Your task to perform on an android device: see creations saved in the google photos Image 0: 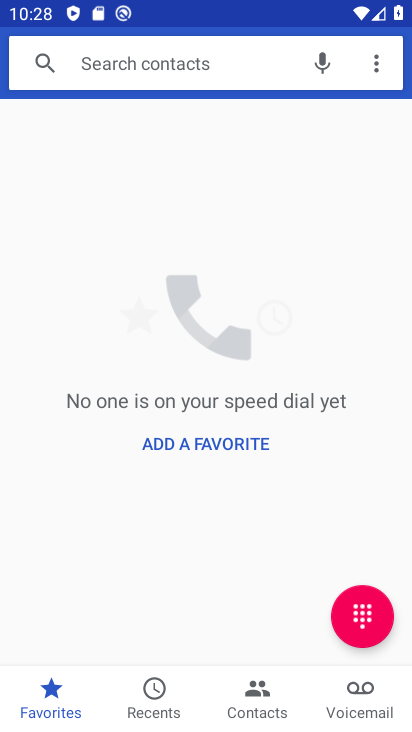
Step 0: press home button
Your task to perform on an android device: see creations saved in the google photos Image 1: 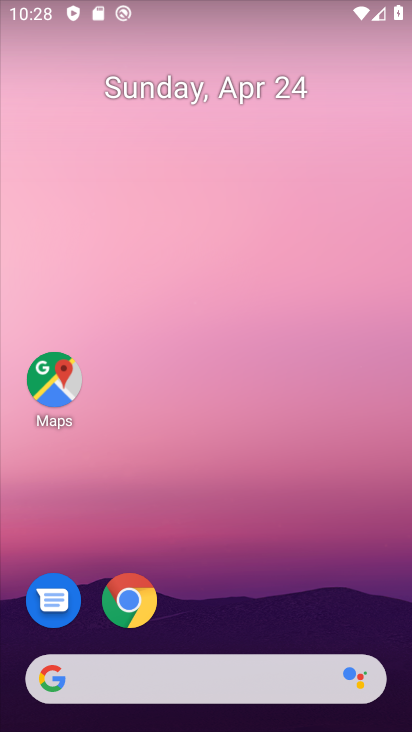
Step 1: drag from (320, 606) to (238, 53)
Your task to perform on an android device: see creations saved in the google photos Image 2: 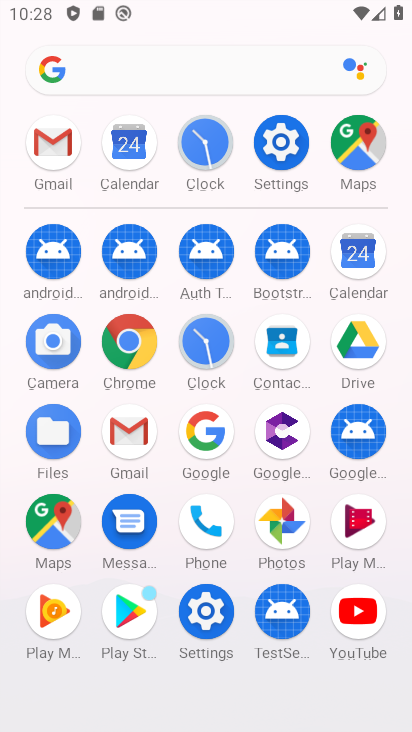
Step 2: click (279, 528)
Your task to perform on an android device: see creations saved in the google photos Image 3: 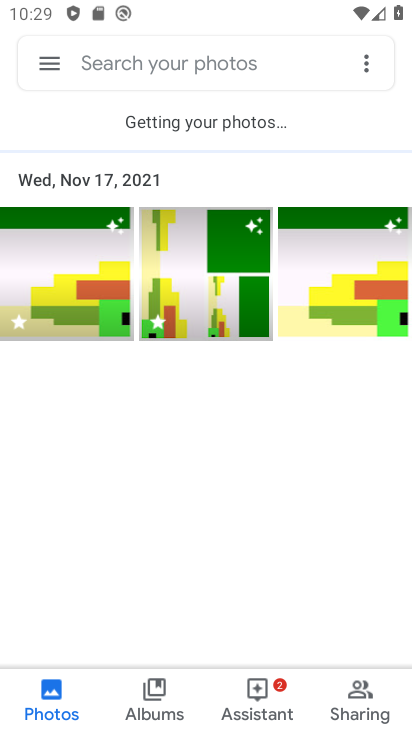
Step 3: click (134, 59)
Your task to perform on an android device: see creations saved in the google photos Image 4: 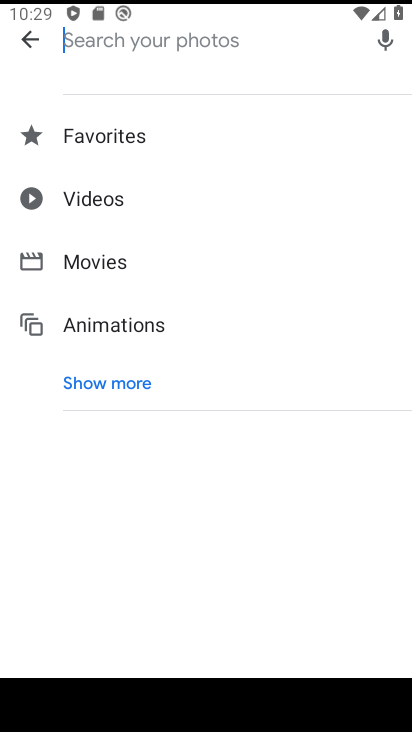
Step 4: click (114, 380)
Your task to perform on an android device: see creations saved in the google photos Image 5: 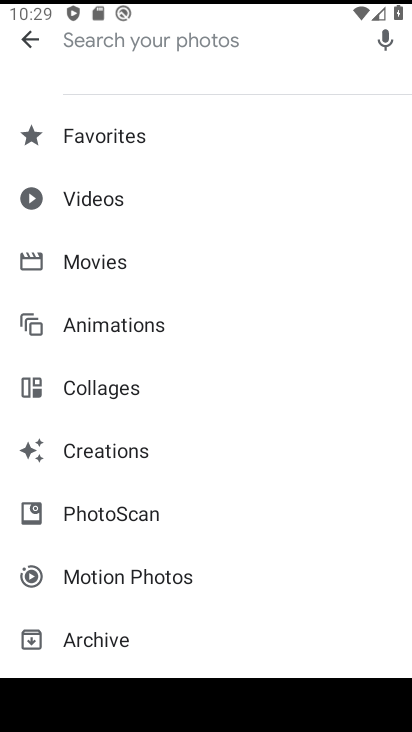
Step 5: click (121, 451)
Your task to perform on an android device: see creations saved in the google photos Image 6: 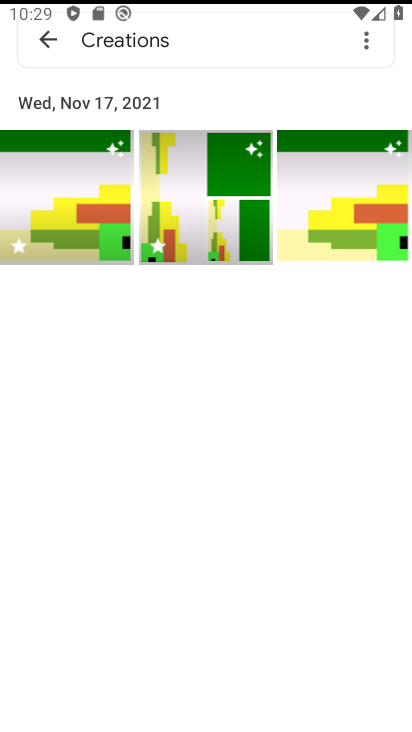
Step 6: task complete